Your task to perform on an android device: find snoozed emails in the gmail app Image 0: 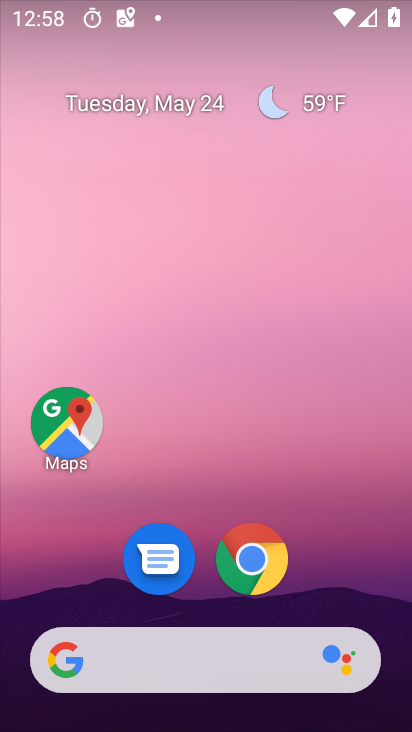
Step 0: drag from (392, 702) to (411, 172)
Your task to perform on an android device: find snoozed emails in the gmail app Image 1: 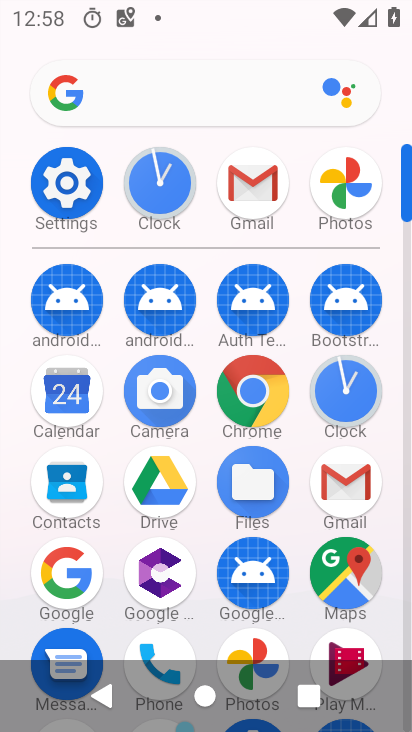
Step 1: click (256, 173)
Your task to perform on an android device: find snoozed emails in the gmail app Image 2: 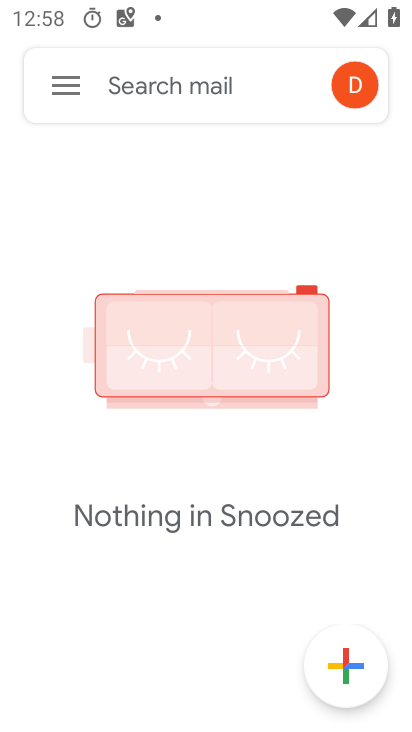
Step 2: click (69, 85)
Your task to perform on an android device: find snoozed emails in the gmail app Image 3: 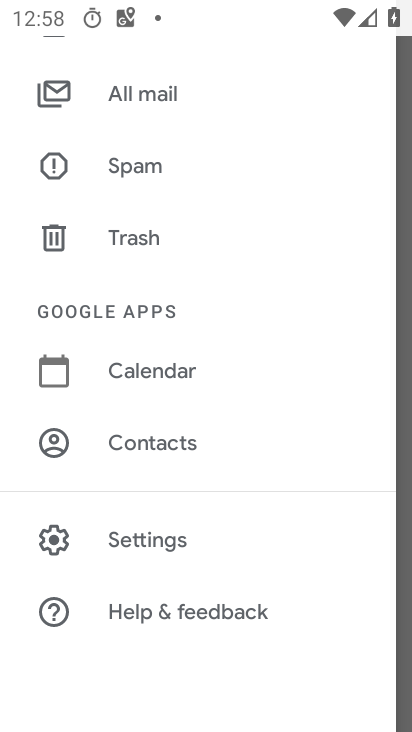
Step 3: drag from (280, 108) to (302, 585)
Your task to perform on an android device: find snoozed emails in the gmail app Image 4: 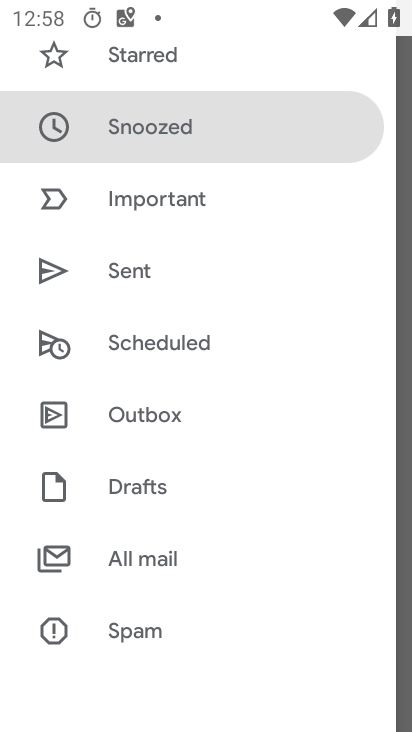
Step 4: click (207, 134)
Your task to perform on an android device: find snoozed emails in the gmail app Image 5: 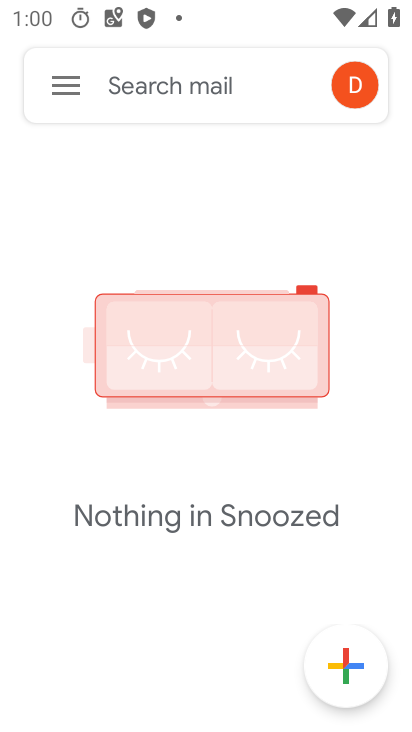
Step 5: click (352, 161)
Your task to perform on an android device: find snoozed emails in the gmail app Image 6: 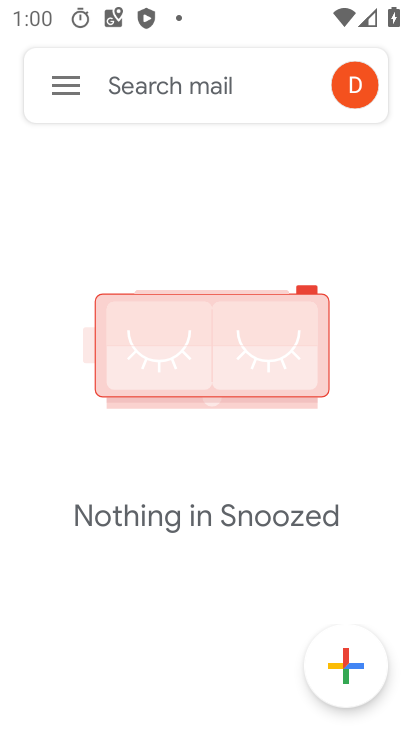
Step 6: task complete